Your task to perform on an android device: turn on translation in the chrome app Image 0: 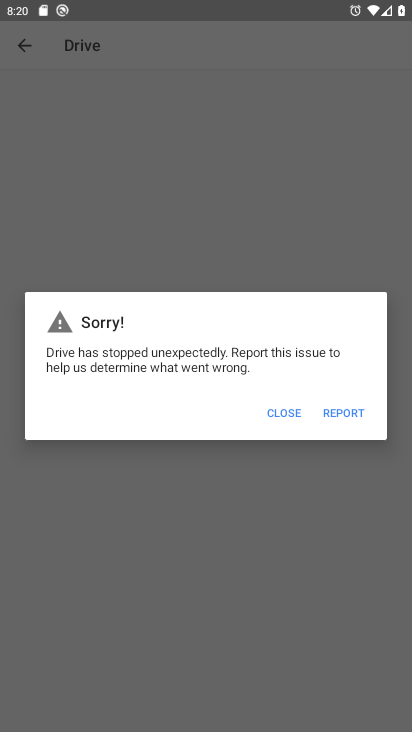
Step 0: press home button
Your task to perform on an android device: turn on translation in the chrome app Image 1: 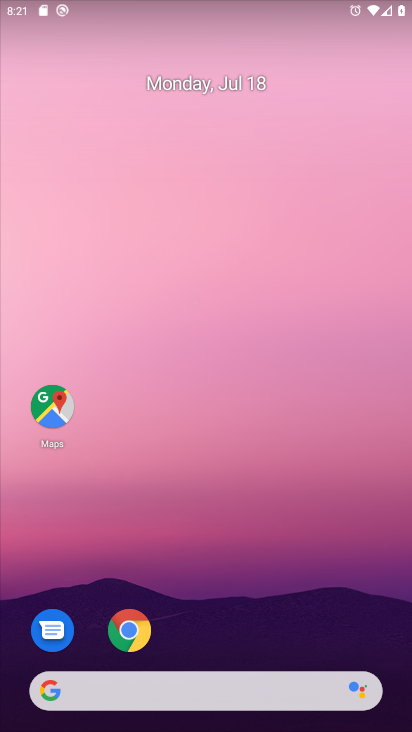
Step 1: click (245, 616)
Your task to perform on an android device: turn on translation in the chrome app Image 2: 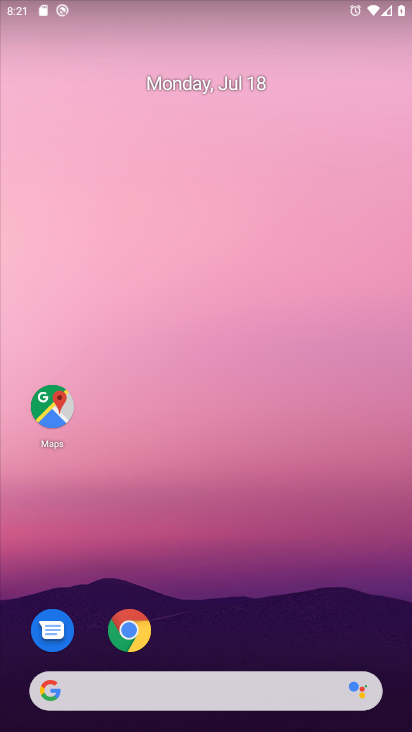
Step 2: click (149, 628)
Your task to perform on an android device: turn on translation in the chrome app Image 3: 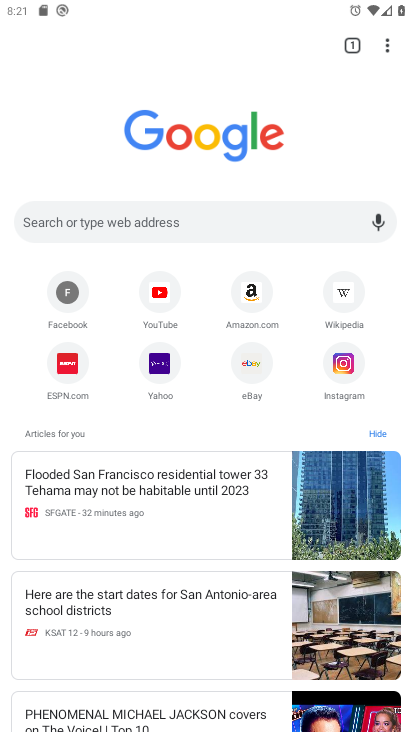
Step 3: click (384, 33)
Your task to perform on an android device: turn on translation in the chrome app Image 4: 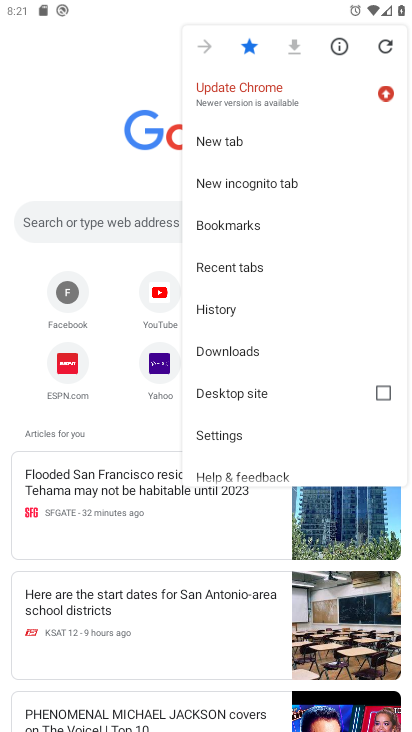
Step 4: click (218, 436)
Your task to perform on an android device: turn on translation in the chrome app Image 5: 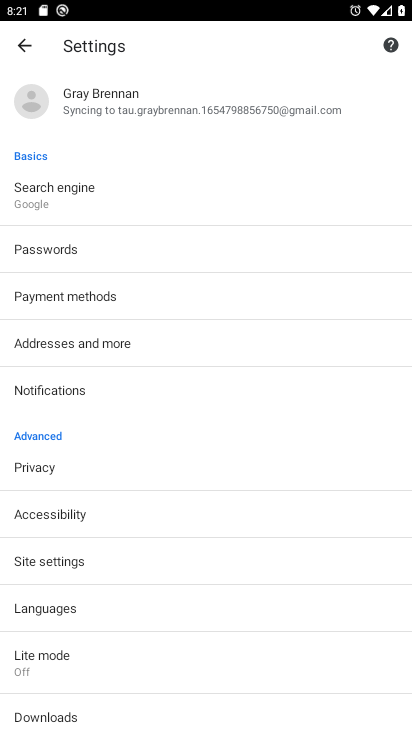
Step 5: click (47, 603)
Your task to perform on an android device: turn on translation in the chrome app Image 6: 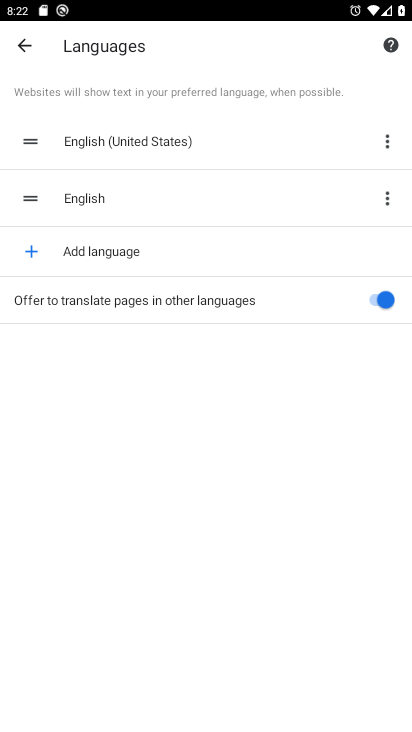
Step 6: task complete